Your task to perform on an android device: Go to display settings Image 0: 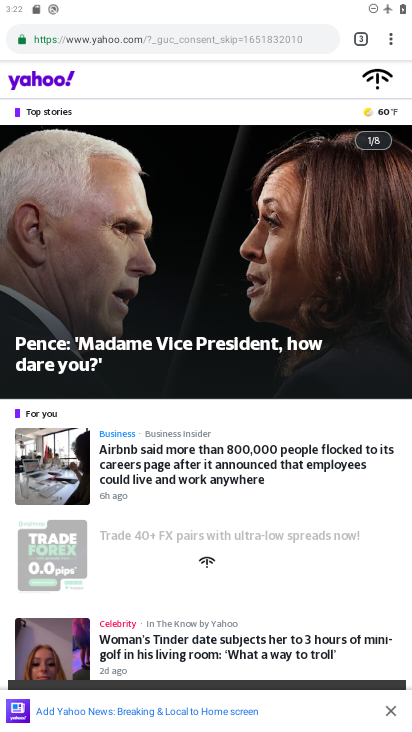
Step 0: press home button
Your task to perform on an android device: Go to display settings Image 1: 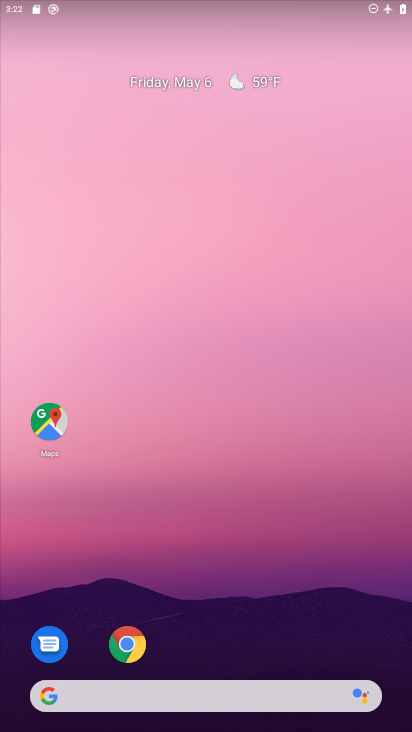
Step 1: drag from (206, 719) to (206, 212)
Your task to perform on an android device: Go to display settings Image 2: 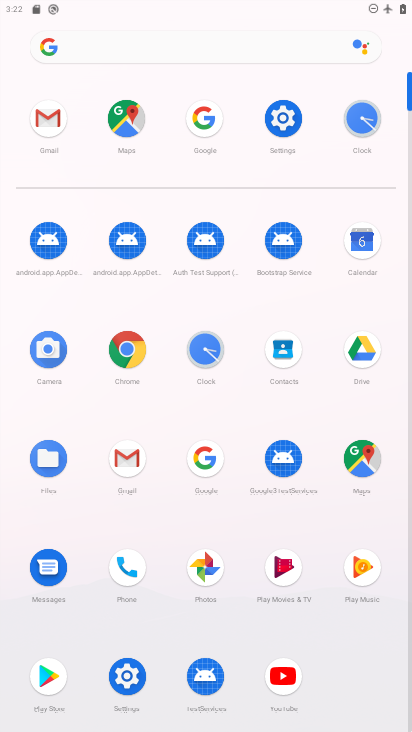
Step 2: click (288, 120)
Your task to perform on an android device: Go to display settings Image 3: 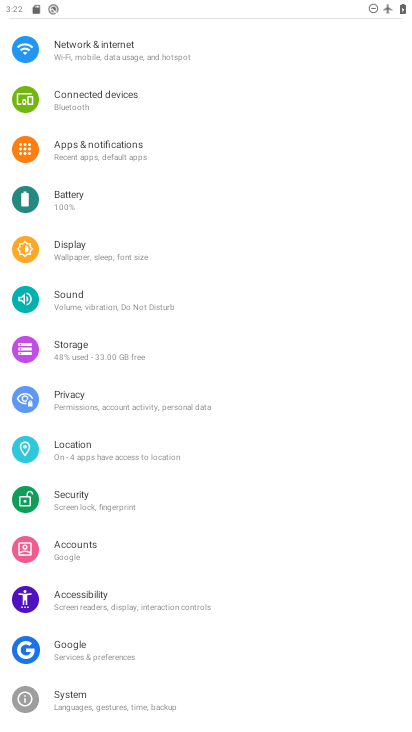
Step 3: click (75, 252)
Your task to perform on an android device: Go to display settings Image 4: 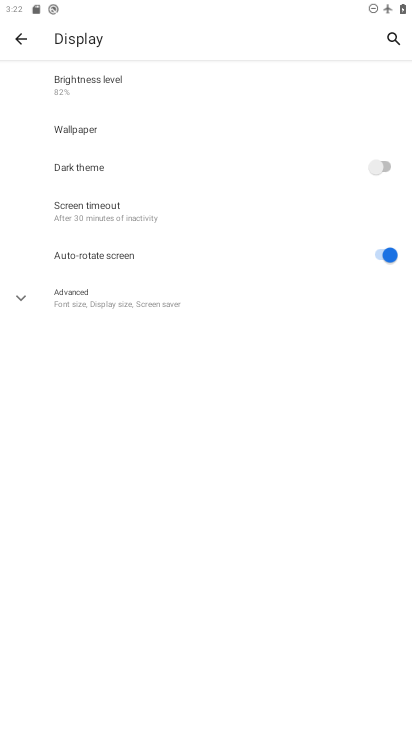
Step 4: task complete